Your task to perform on an android device: check google app version Image 0: 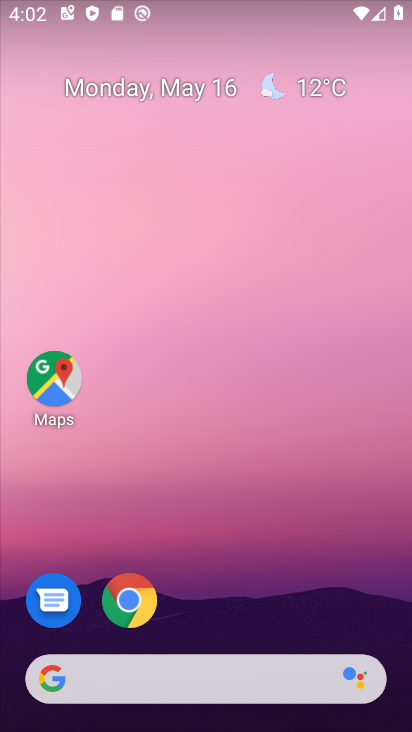
Step 0: drag from (103, 660) to (105, 248)
Your task to perform on an android device: check google app version Image 1: 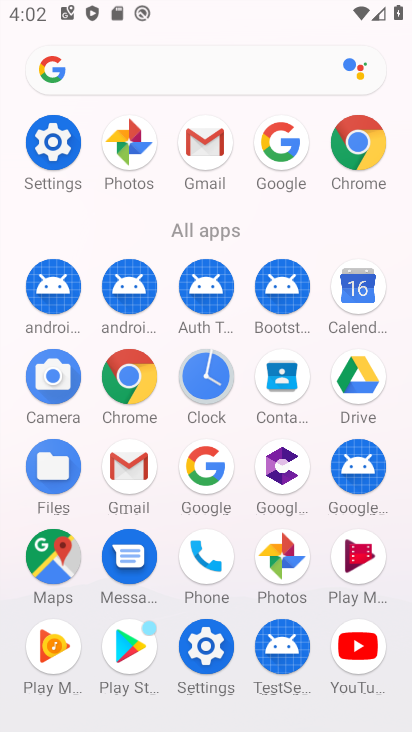
Step 1: click (211, 470)
Your task to perform on an android device: check google app version Image 2: 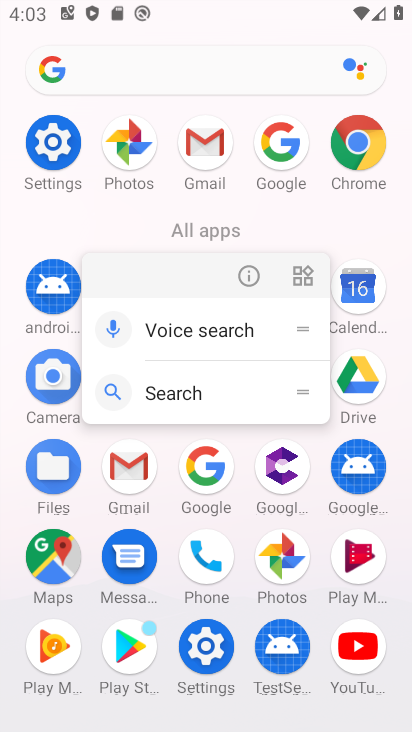
Step 2: click (247, 268)
Your task to perform on an android device: check google app version Image 3: 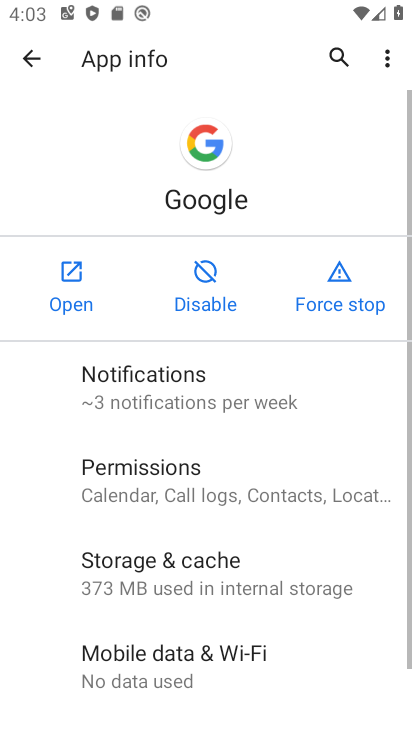
Step 3: drag from (237, 707) to (236, 287)
Your task to perform on an android device: check google app version Image 4: 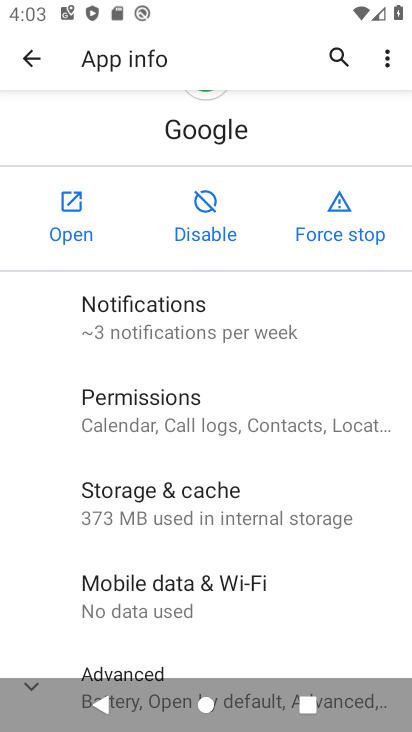
Step 4: drag from (245, 649) to (272, 211)
Your task to perform on an android device: check google app version Image 5: 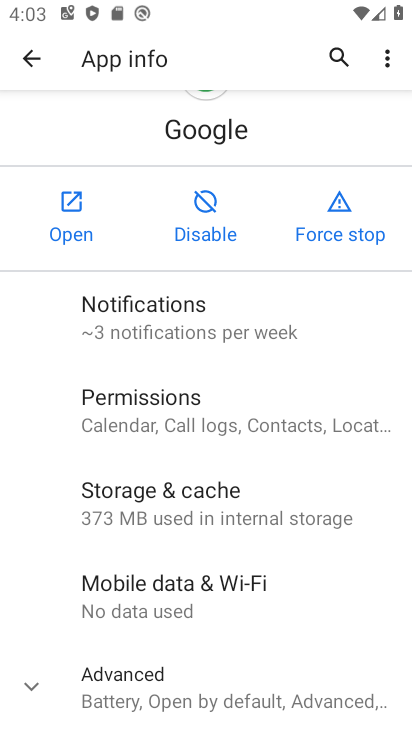
Step 5: click (95, 676)
Your task to perform on an android device: check google app version Image 6: 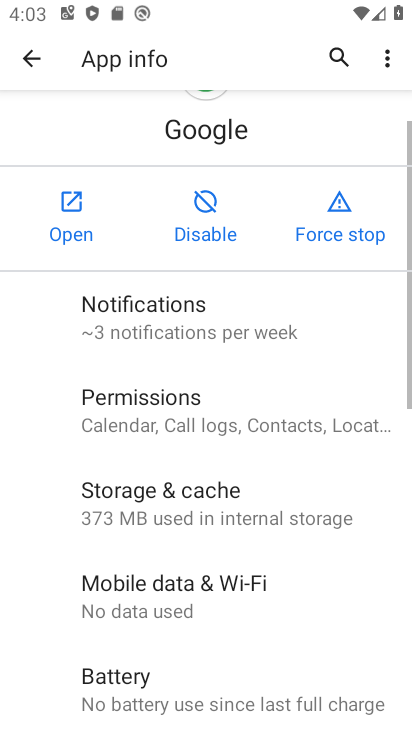
Step 6: task complete